Your task to perform on an android device: add a contact in the contacts app Image 0: 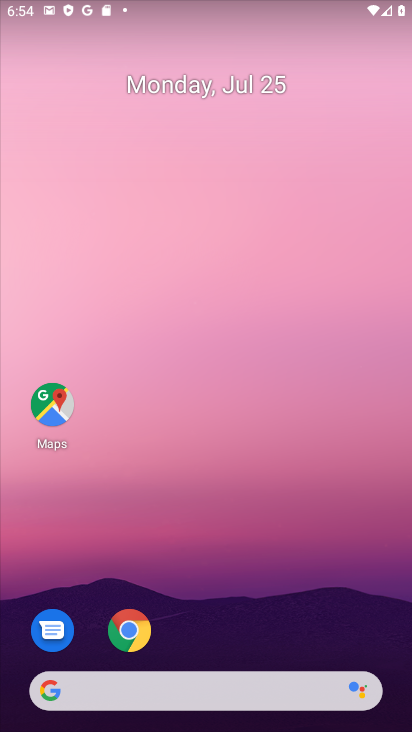
Step 0: drag from (244, 710) to (198, 246)
Your task to perform on an android device: add a contact in the contacts app Image 1: 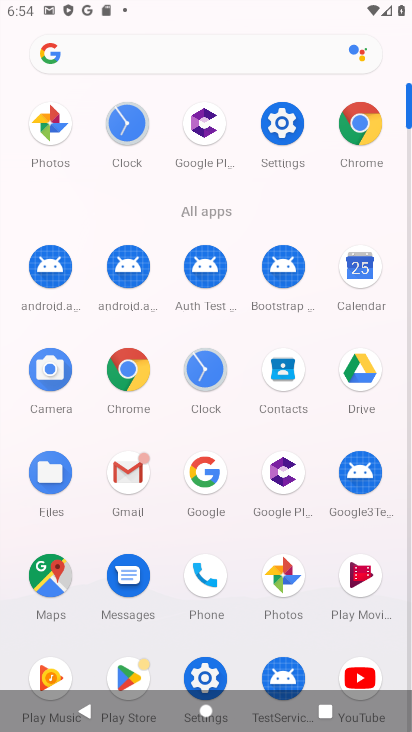
Step 1: click (213, 582)
Your task to perform on an android device: add a contact in the contacts app Image 2: 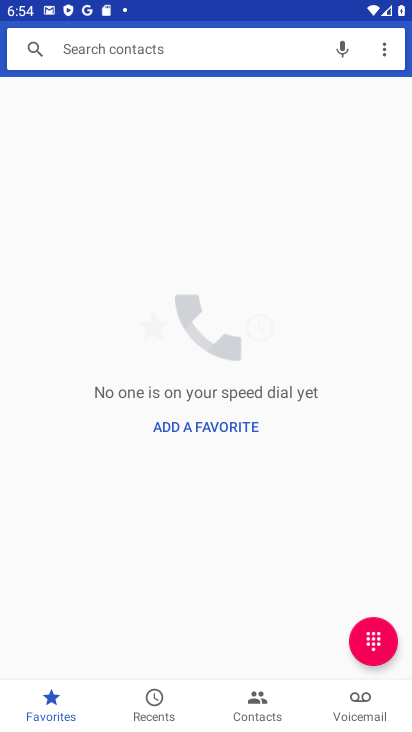
Step 2: click (241, 702)
Your task to perform on an android device: add a contact in the contacts app Image 3: 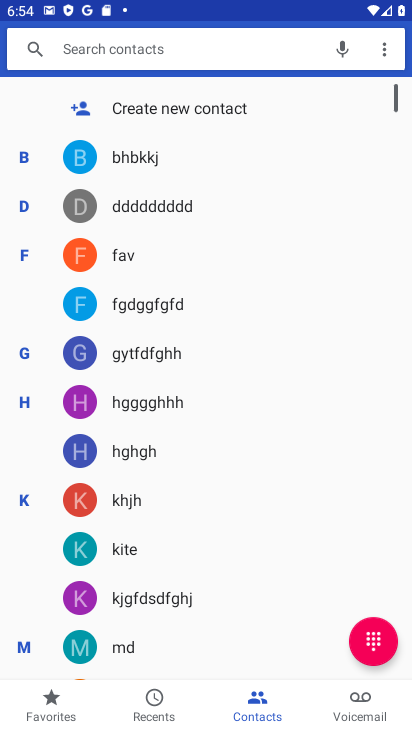
Step 3: click (120, 109)
Your task to perform on an android device: add a contact in the contacts app Image 4: 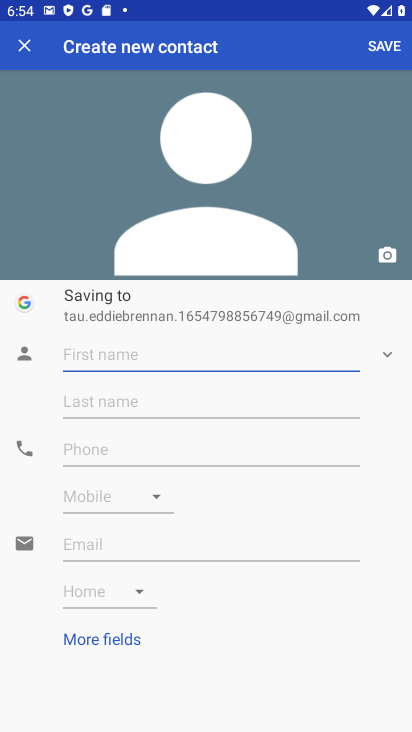
Step 4: click (130, 364)
Your task to perform on an android device: add a contact in the contacts app Image 5: 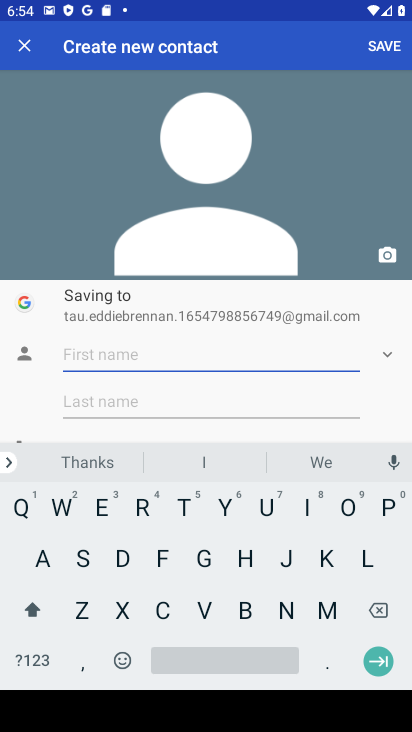
Step 5: click (176, 608)
Your task to perform on an android device: add a contact in the contacts app Image 6: 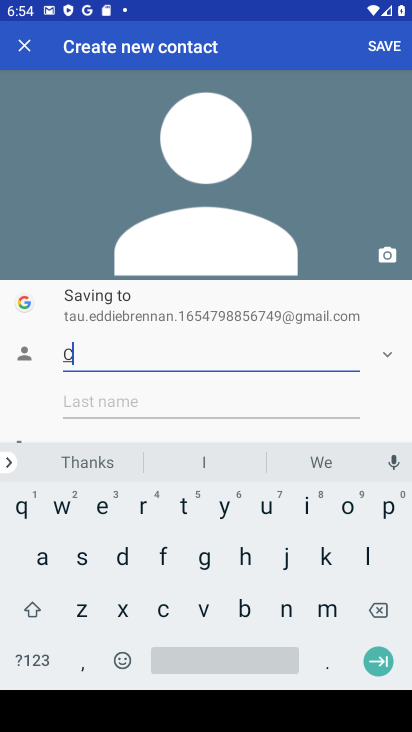
Step 6: click (118, 566)
Your task to perform on an android device: add a contact in the contacts app Image 7: 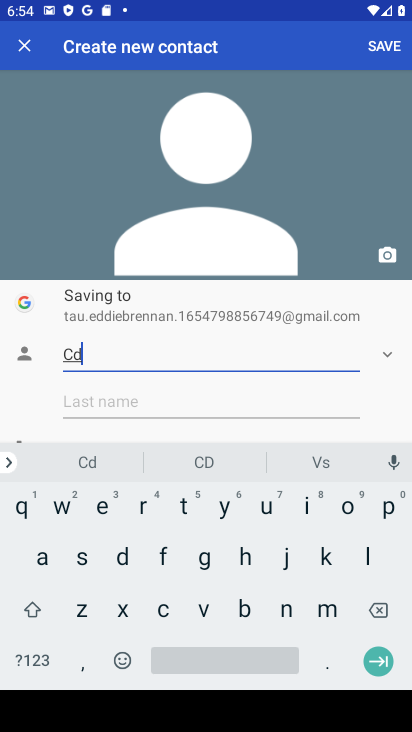
Step 7: click (59, 546)
Your task to perform on an android device: add a contact in the contacts app Image 8: 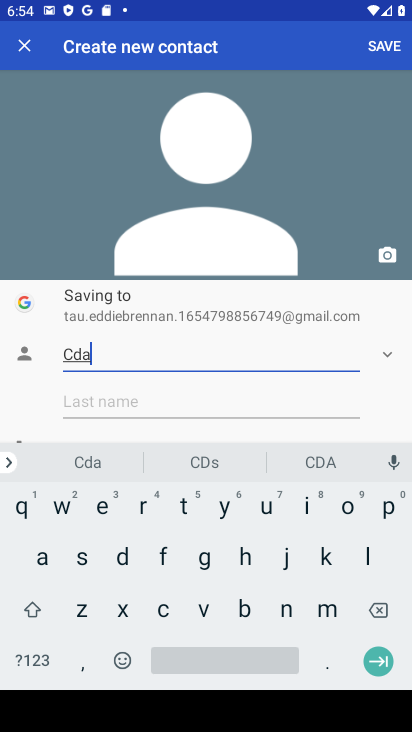
Step 8: click (112, 442)
Your task to perform on an android device: add a contact in the contacts app Image 9: 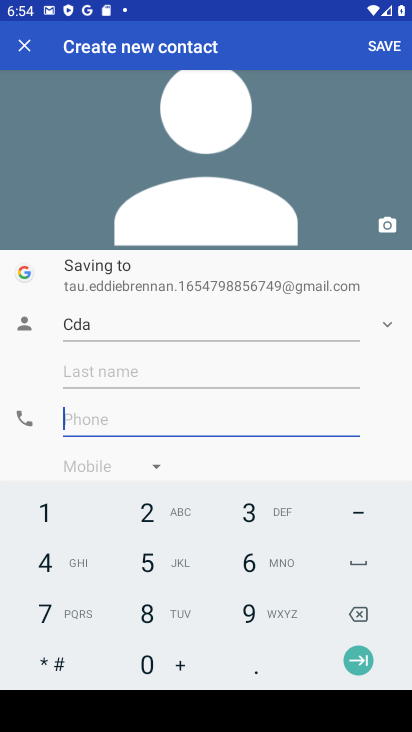
Step 9: click (199, 576)
Your task to perform on an android device: add a contact in the contacts app Image 10: 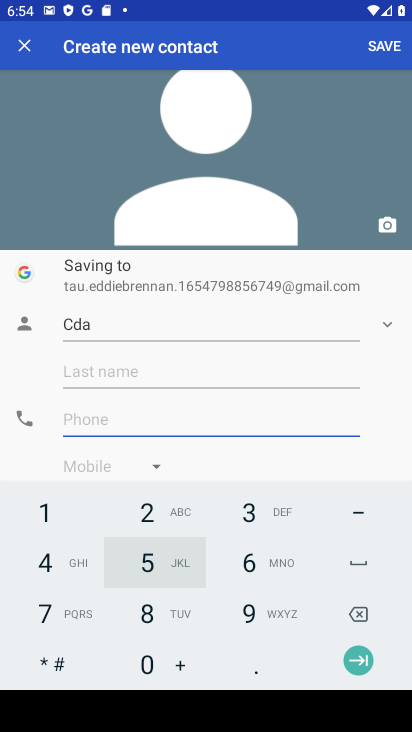
Step 10: click (145, 563)
Your task to perform on an android device: add a contact in the contacts app Image 11: 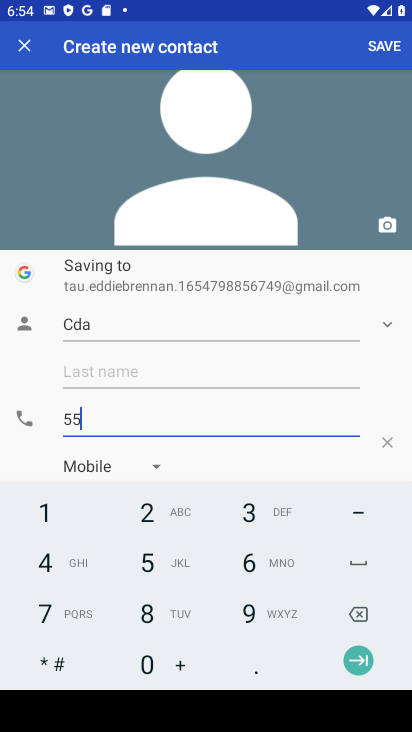
Step 11: click (81, 548)
Your task to perform on an android device: add a contact in the contacts app Image 12: 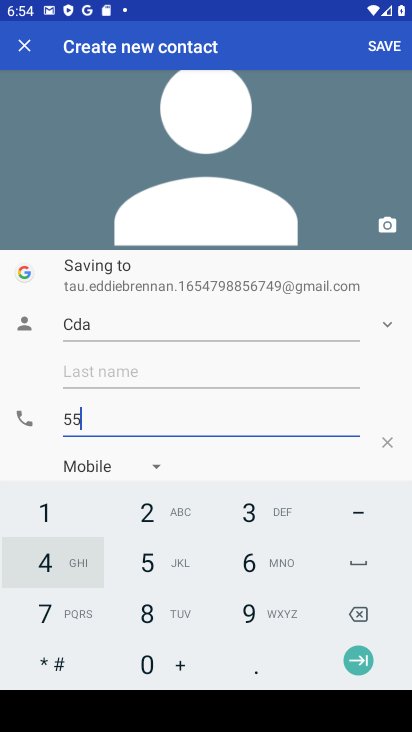
Step 12: click (147, 532)
Your task to perform on an android device: add a contact in the contacts app Image 13: 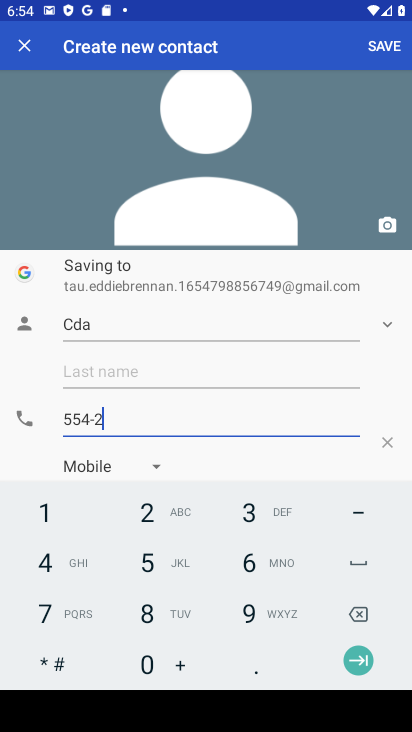
Step 13: click (245, 583)
Your task to perform on an android device: add a contact in the contacts app Image 14: 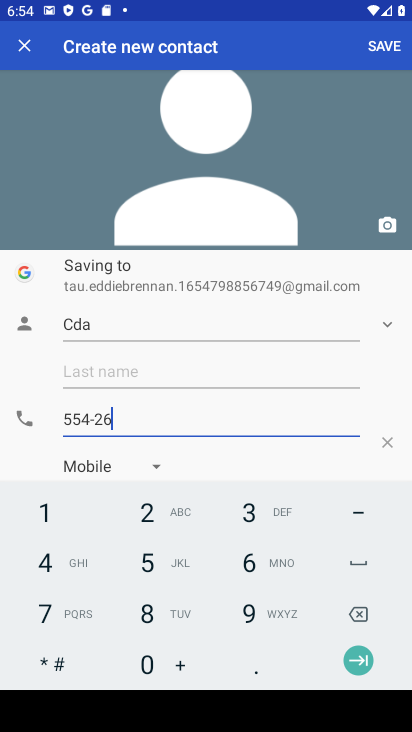
Step 14: click (246, 611)
Your task to perform on an android device: add a contact in the contacts app Image 15: 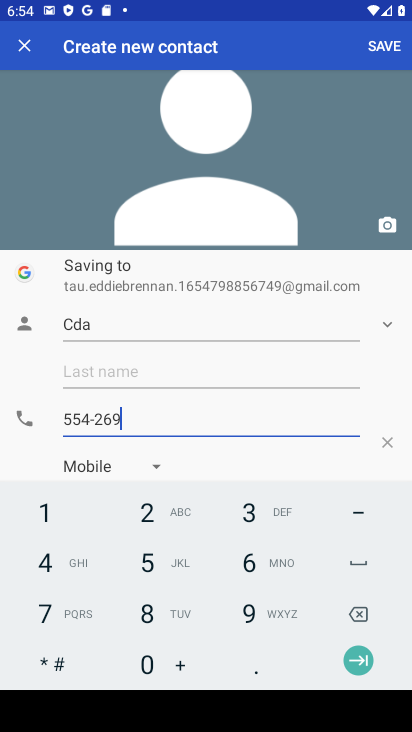
Step 15: click (393, 50)
Your task to perform on an android device: add a contact in the contacts app Image 16: 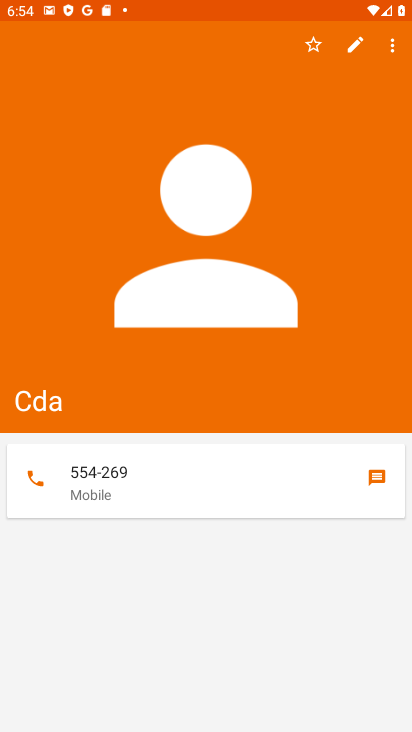
Step 16: task complete